Your task to perform on an android device: Go to battery settings Image 0: 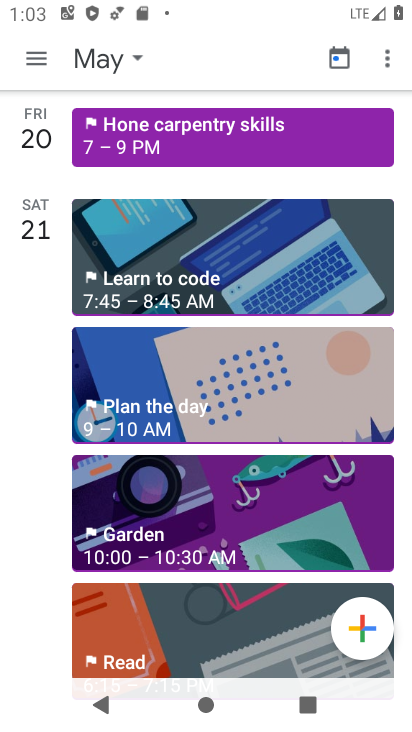
Step 0: press home button
Your task to perform on an android device: Go to battery settings Image 1: 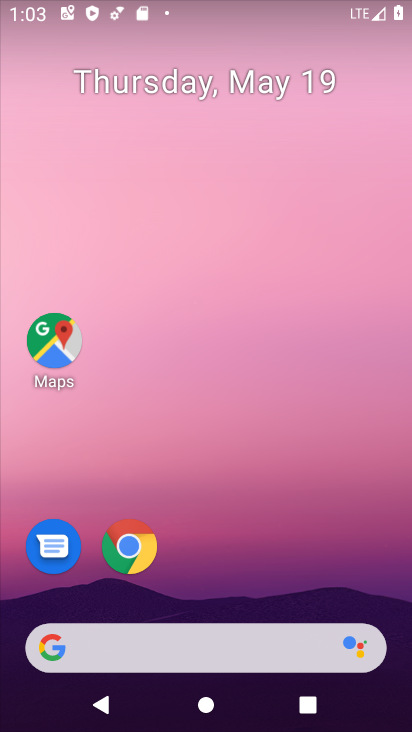
Step 1: drag from (141, 612) to (294, 19)
Your task to perform on an android device: Go to battery settings Image 2: 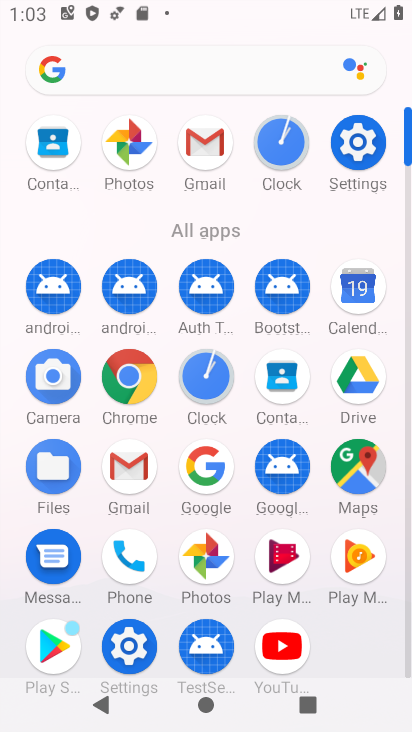
Step 2: click (362, 140)
Your task to perform on an android device: Go to battery settings Image 3: 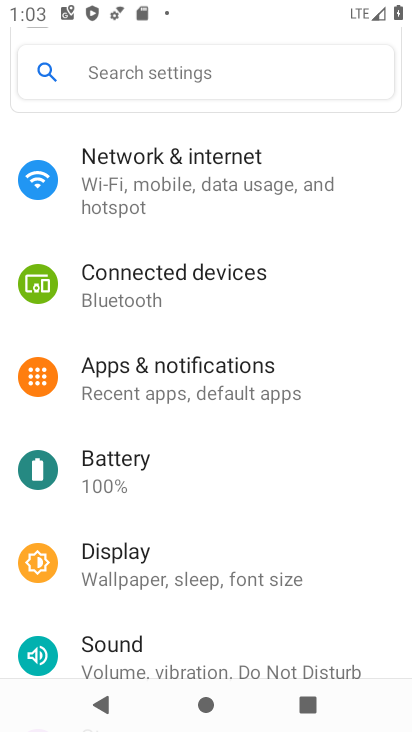
Step 3: click (213, 483)
Your task to perform on an android device: Go to battery settings Image 4: 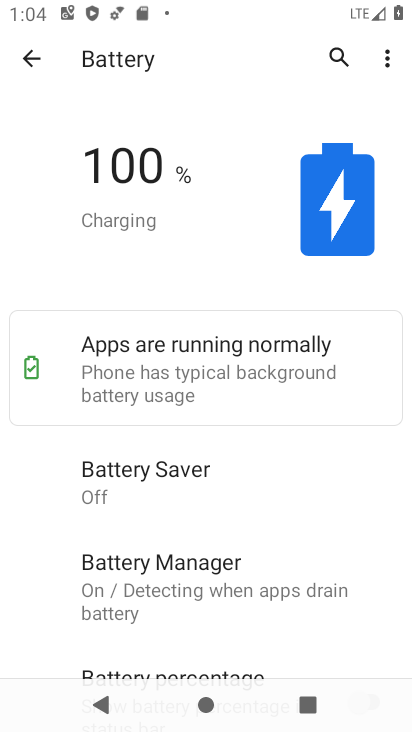
Step 4: task complete